Your task to perform on an android device: Open settings on Google Maps Image 0: 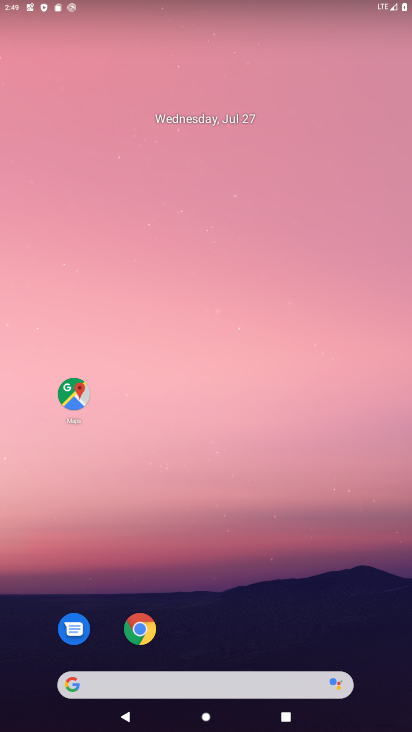
Step 0: click (58, 381)
Your task to perform on an android device: Open settings on Google Maps Image 1: 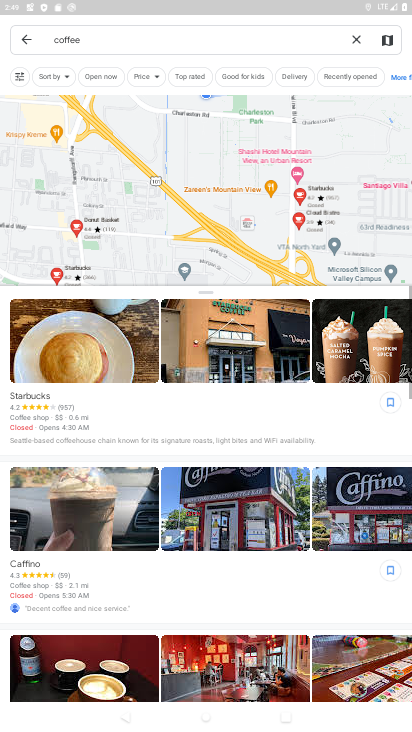
Step 1: click (29, 30)
Your task to perform on an android device: Open settings on Google Maps Image 2: 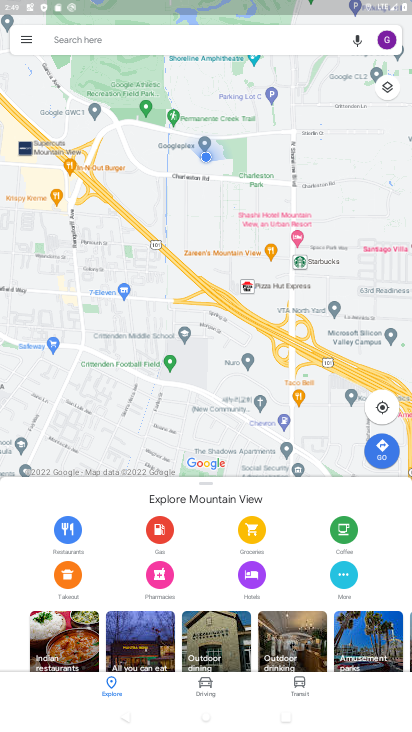
Step 2: click (28, 34)
Your task to perform on an android device: Open settings on Google Maps Image 3: 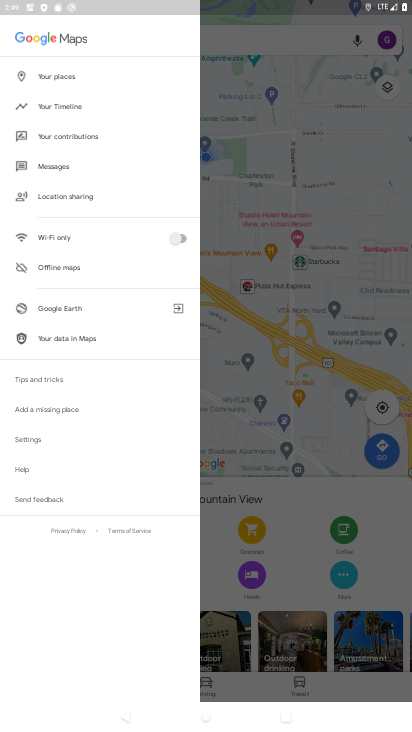
Step 3: click (44, 439)
Your task to perform on an android device: Open settings on Google Maps Image 4: 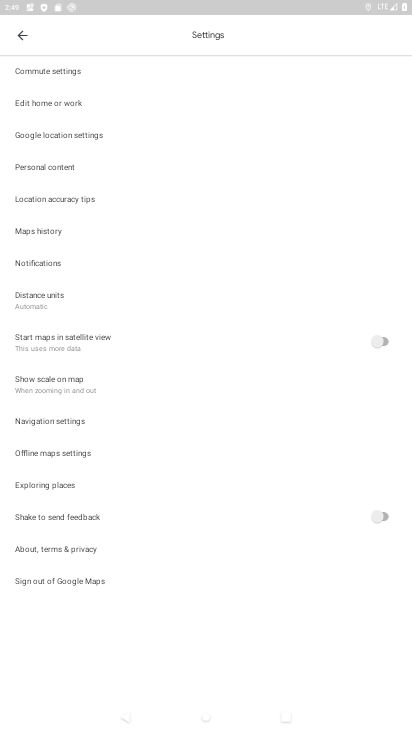
Step 4: task complete